Your task to perform on an android device: Google the capital of the United States Image 0: 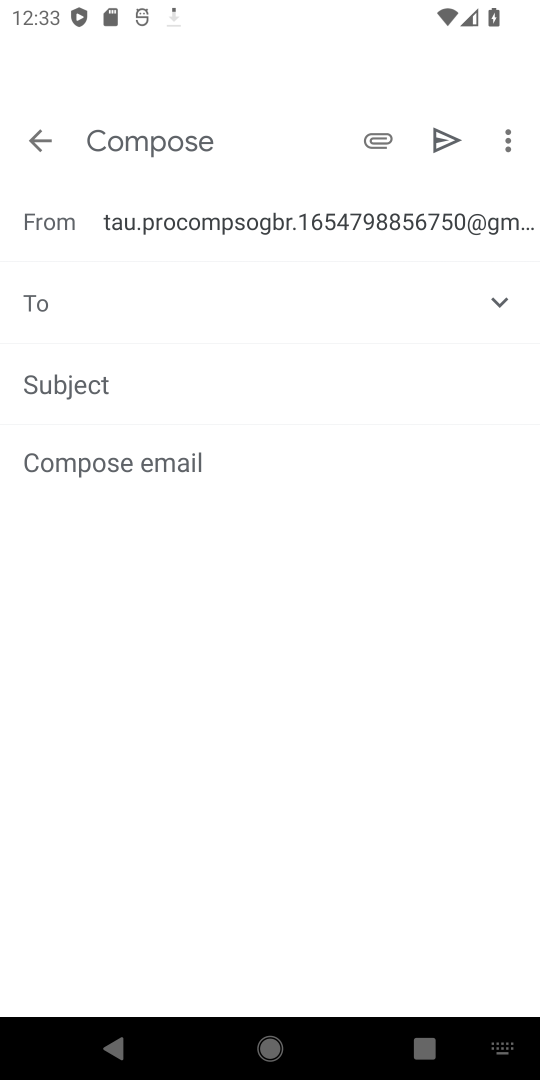
Step 0: press home button
Your task to perform on an android device: Google the capital of the United States Image 1: 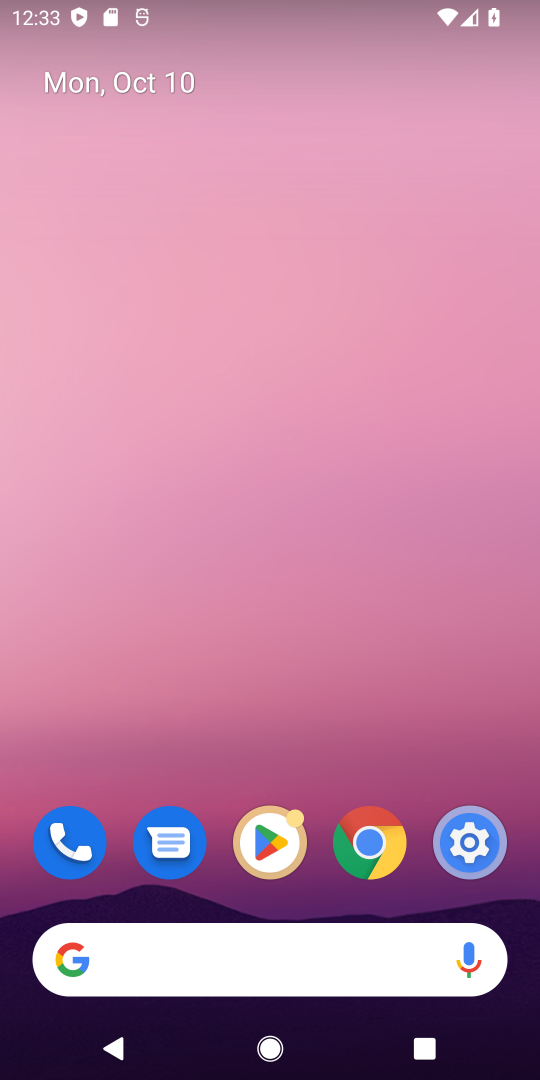
Step 1: click (377, 853)
Your task to perform on an android device: Google the capital of the United States Image 2: 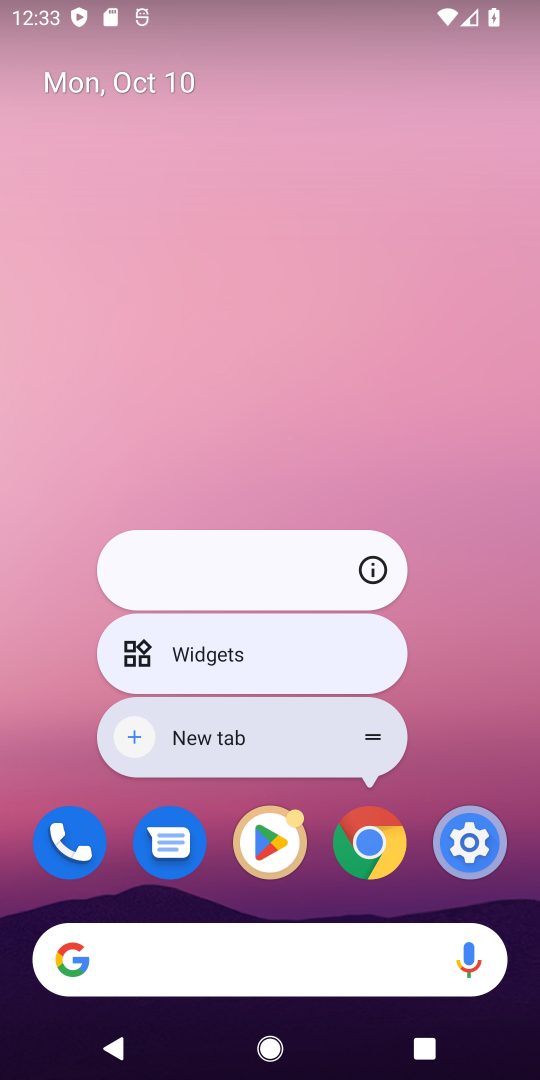
Step 2: click (380, 855)
Your task to perform on an android device: Google the capital of the United States Image 3: 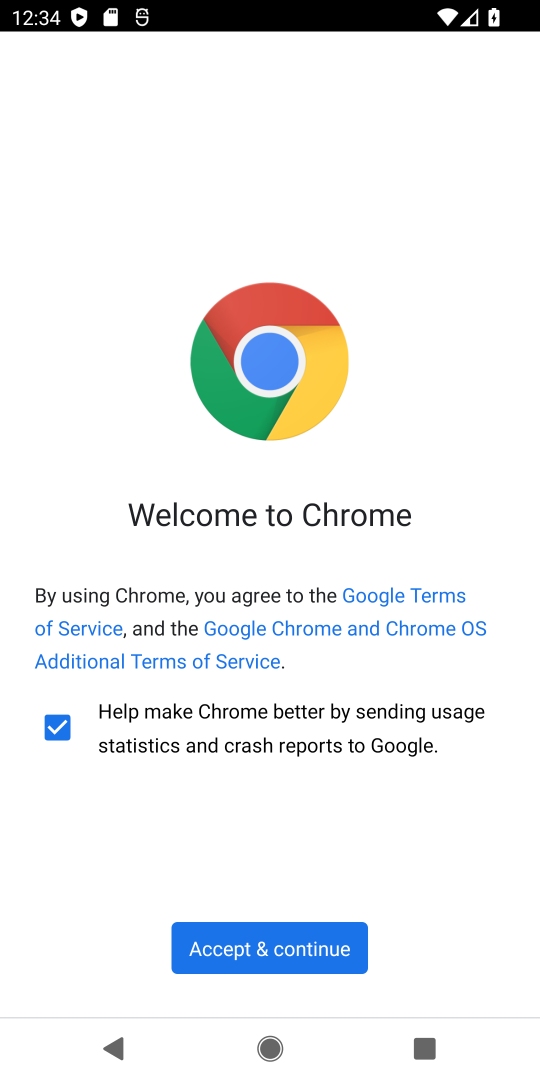
Step 3: click (282, 946)
Your task to perform on an android device: Google the capital of the United States Image 4: 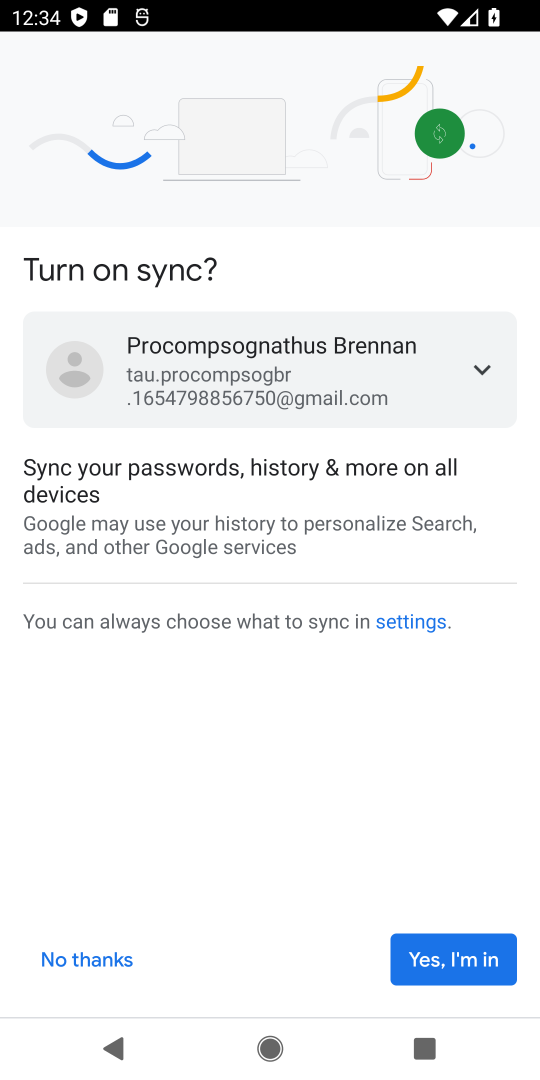
Step 4: click (444, 948)
Your task to perform on an android device: Google the capital of the United States Image 5: 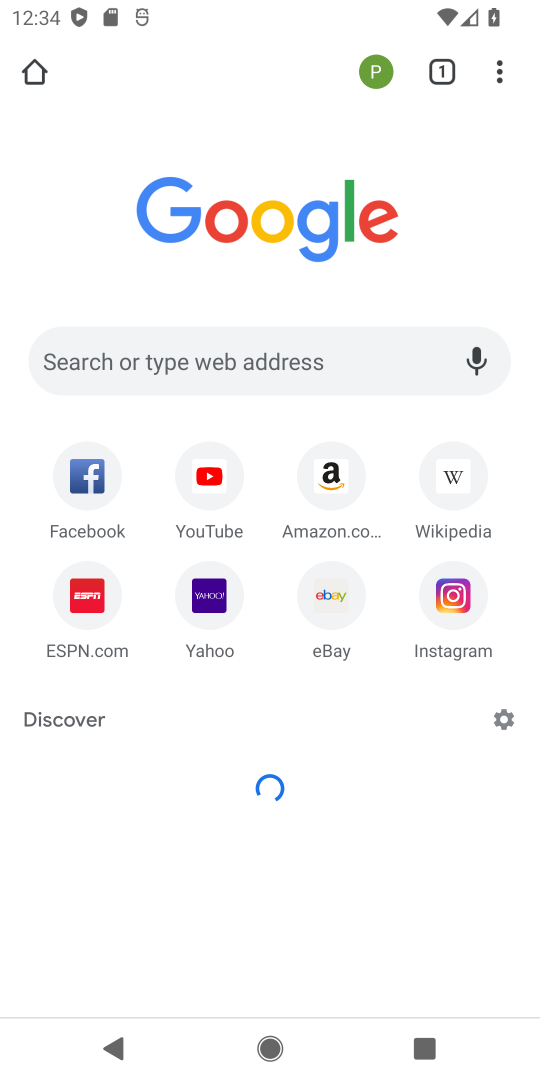
Step 5: click (231, 357)
Your task to perform on an android device: Google the capital of the United States Image 6: 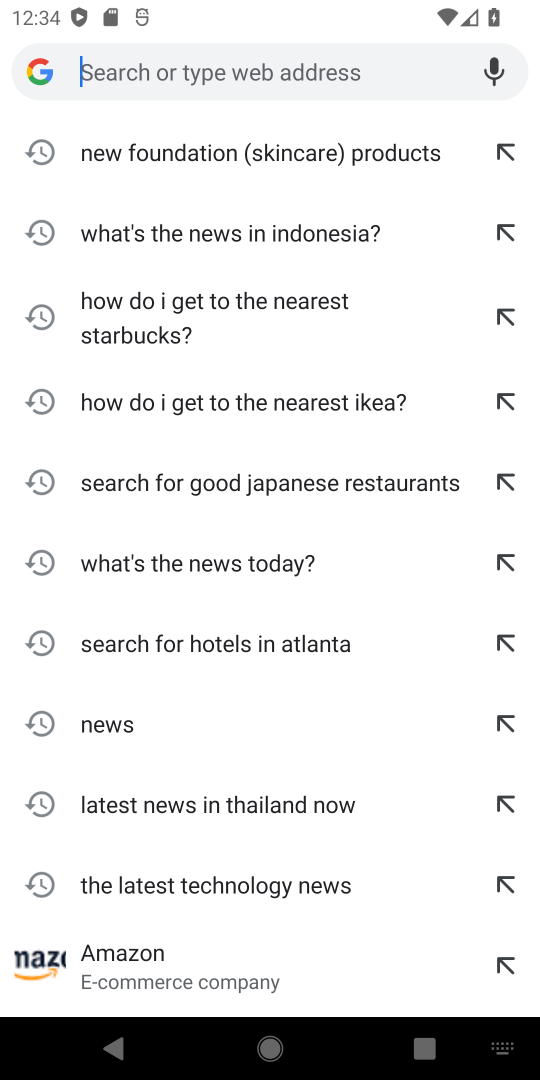
Step 6: type "capital of the United States"
Your task to perform on an android device: Google the capital of the United States Image 7: 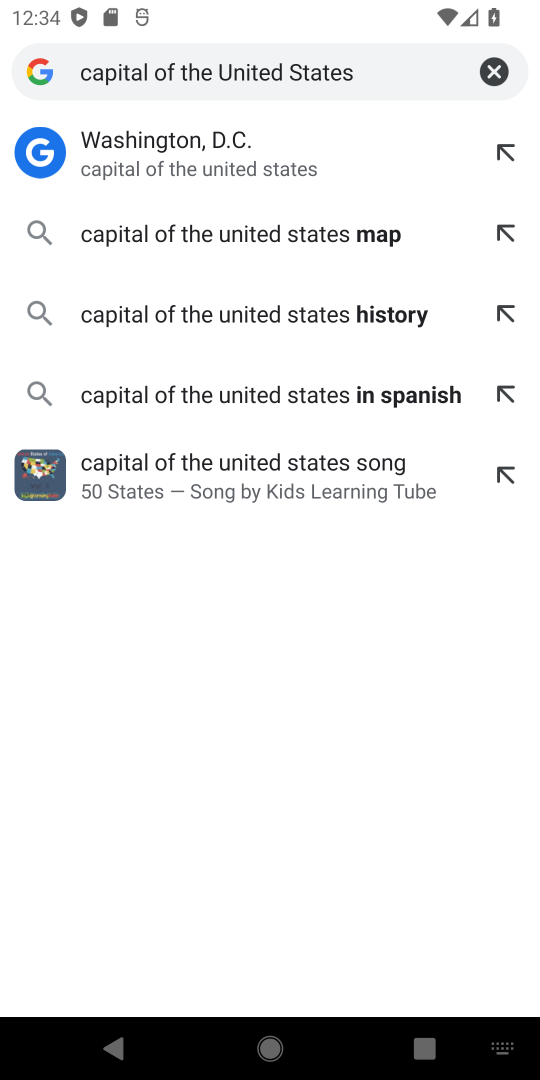
Step 7: press enter
Your task to perform on an android device: Google the capital of the United States Image 8: 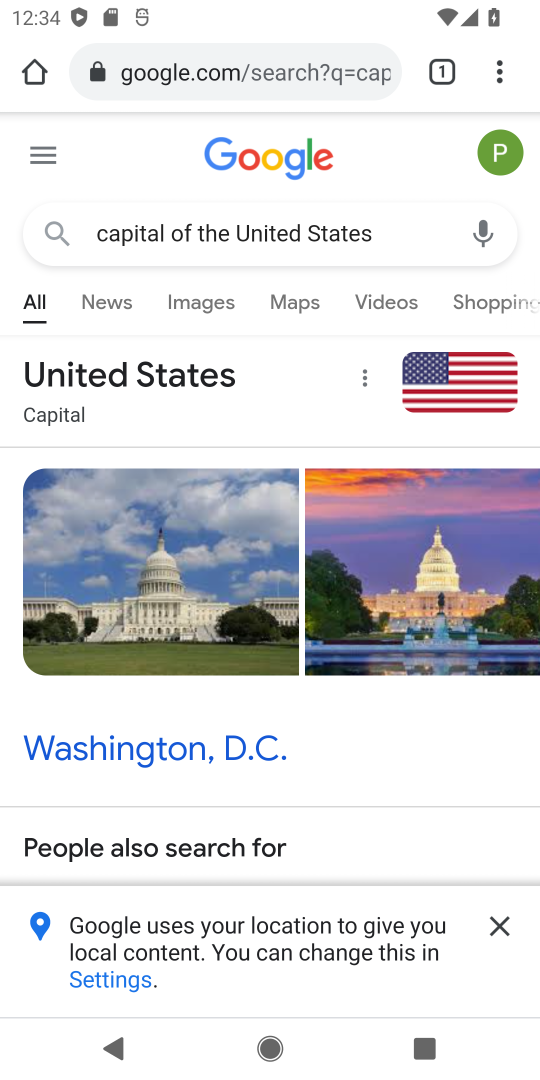
Step 8: click (506, 936)
Your task to perform on an android device: Google the capital of the United States Image 9: 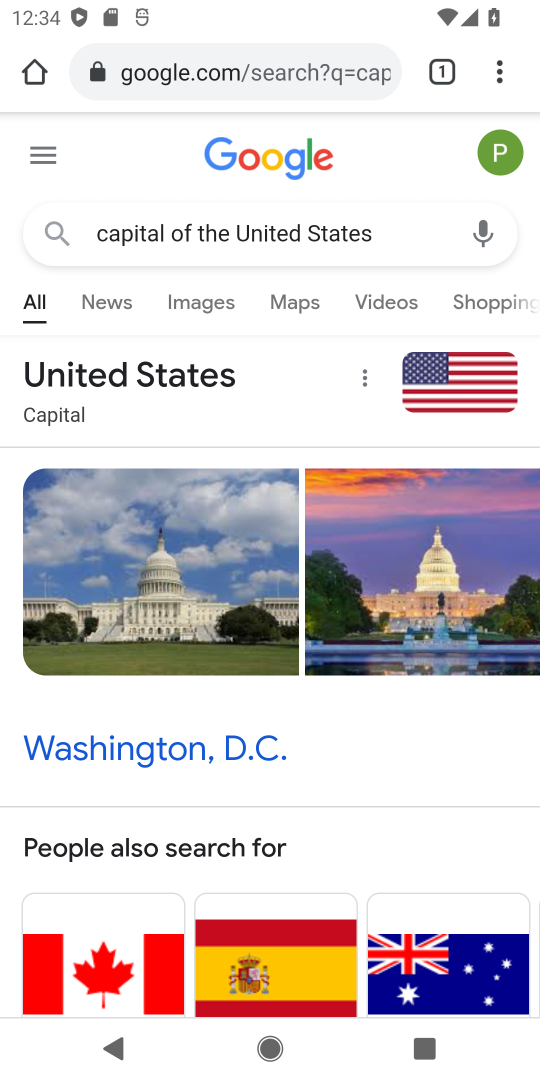
Step 9: task complete